Your task to perform on an android device: open app "Booking.com: Hotels and more" (install if not already installed) Image 0: 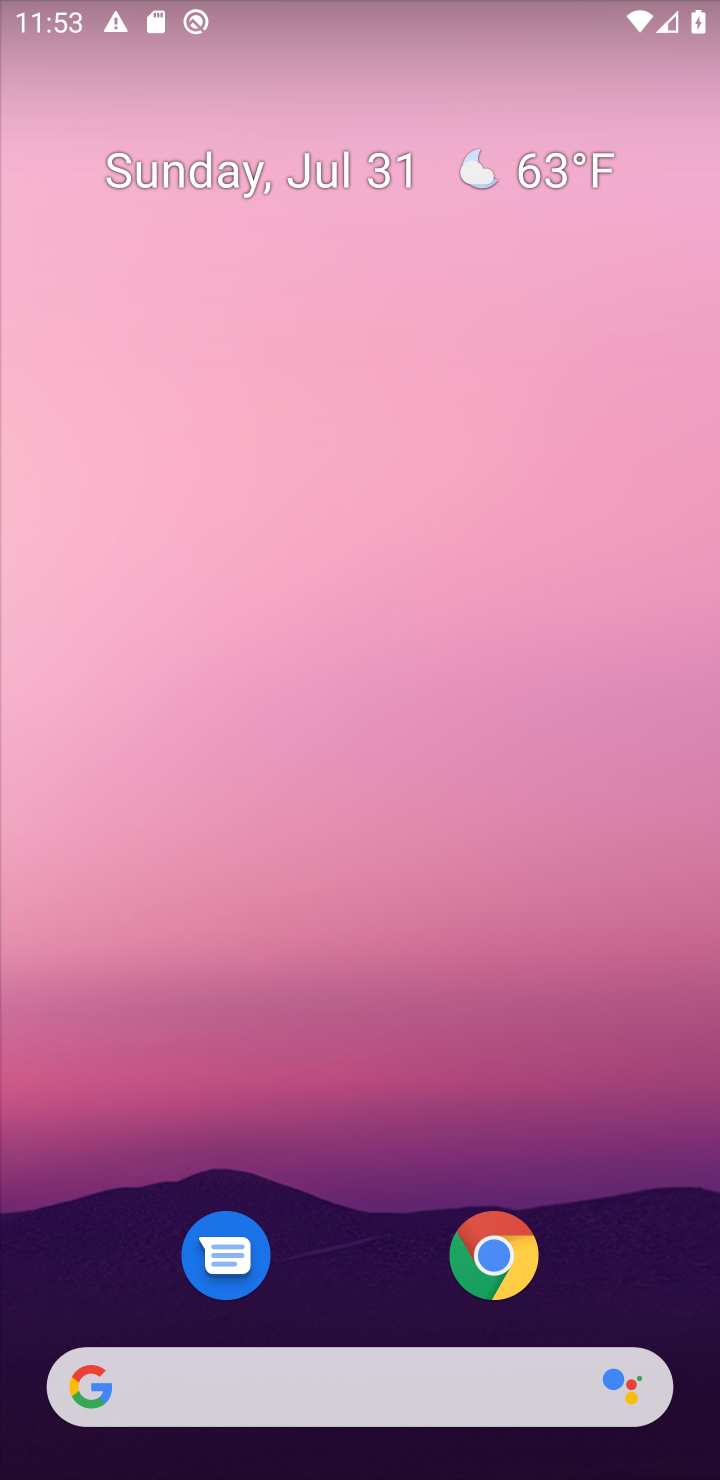
Step 0: drag from (402, 1202) to (303, 654)
Your task to perform on an android device: open app "Booking.com: Hotels and more" (install if not already installed) Image 1: 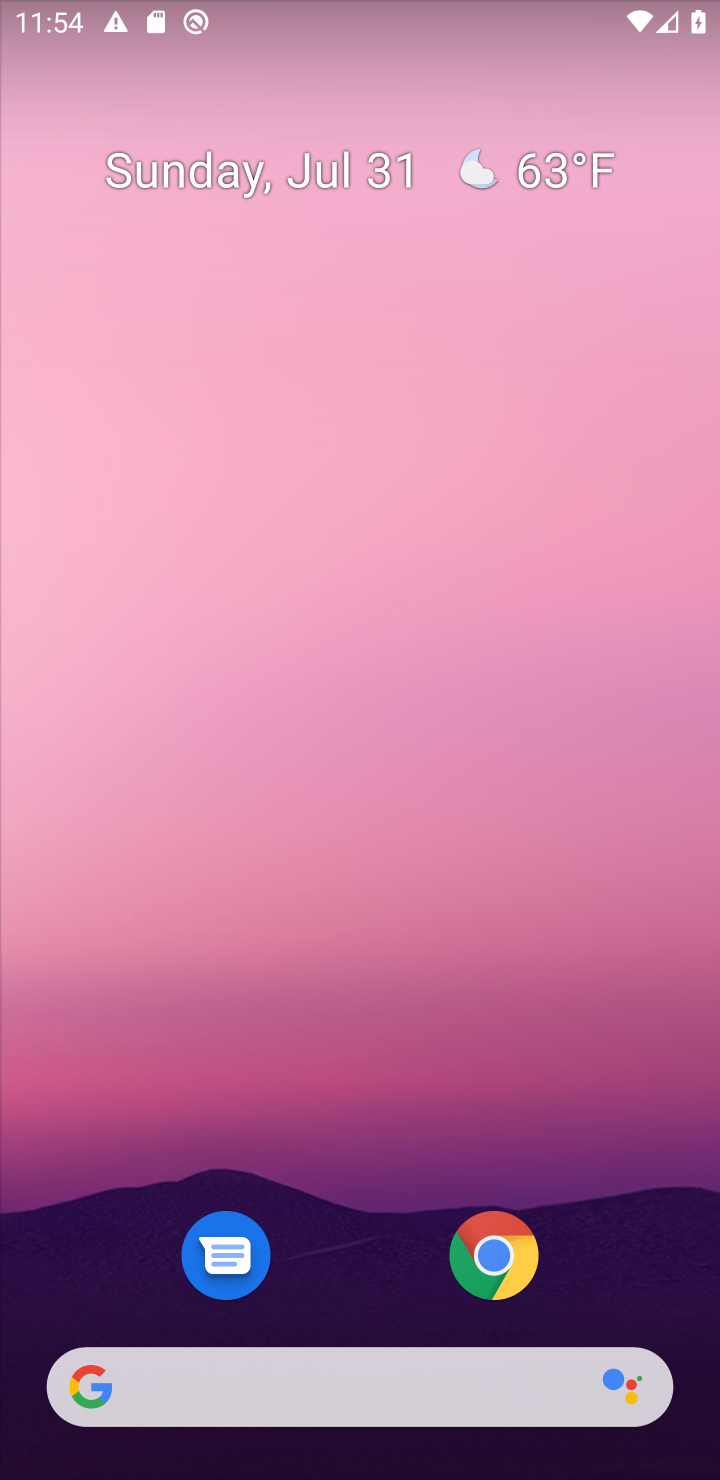
Step 1: drag from (410, 1124) to (358, 34)
Your task to perform on an android device: open app "Booking.com: Hotels and more" (install if not already installed) Image 2: 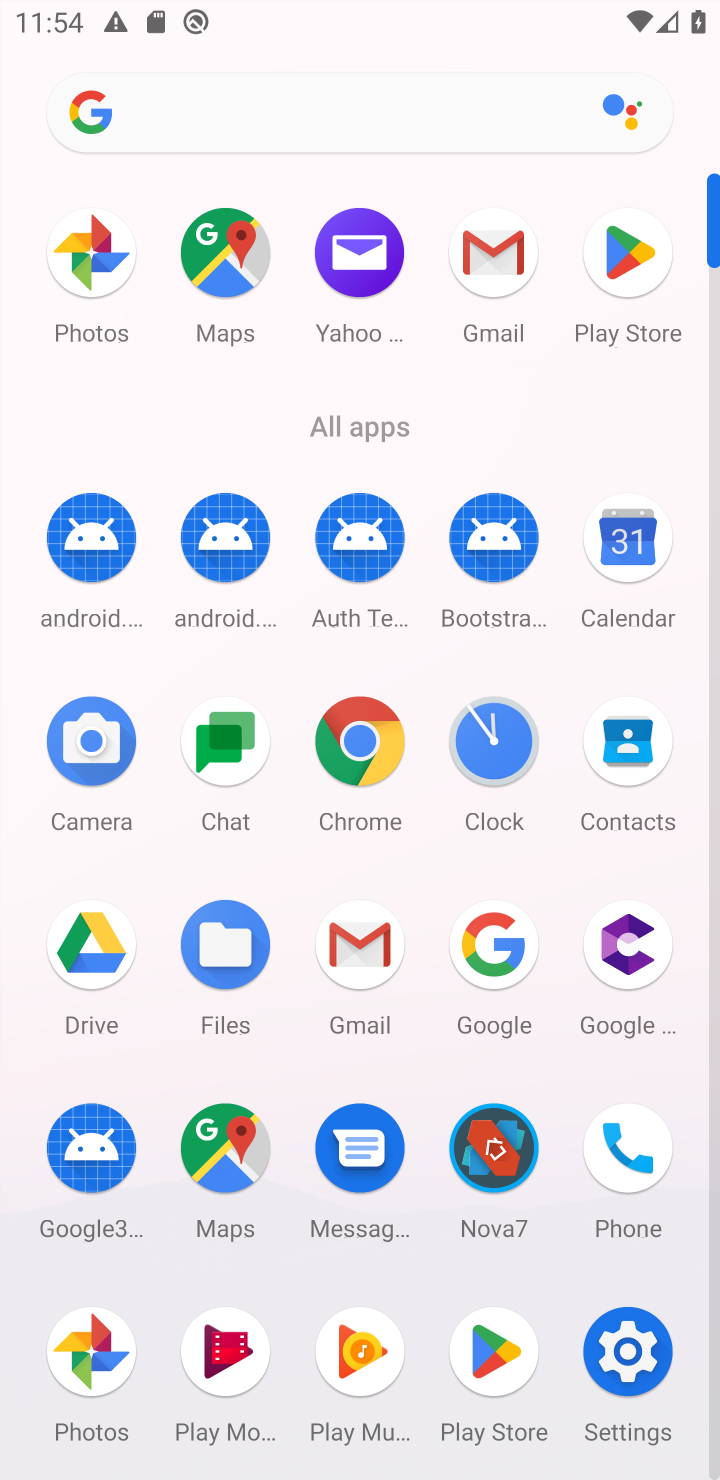
Step 2: click (519, 1352)
Your task to perform on an android device: open app "Booking.com: Hotels and more" (install if not already installed) Image 3: 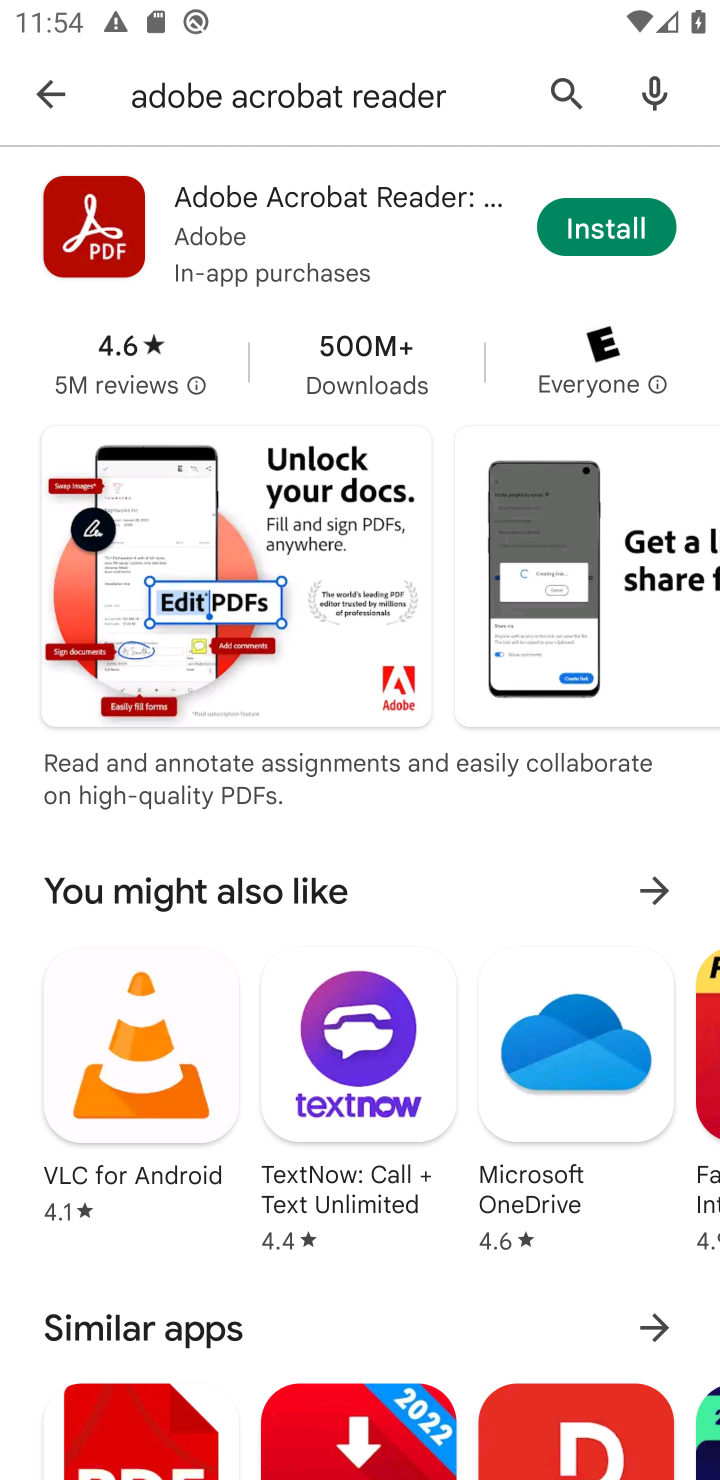
Step 3: task complete